Your task to perform on an android device: What's the weather like in Rio de Janeiro? Image 0: 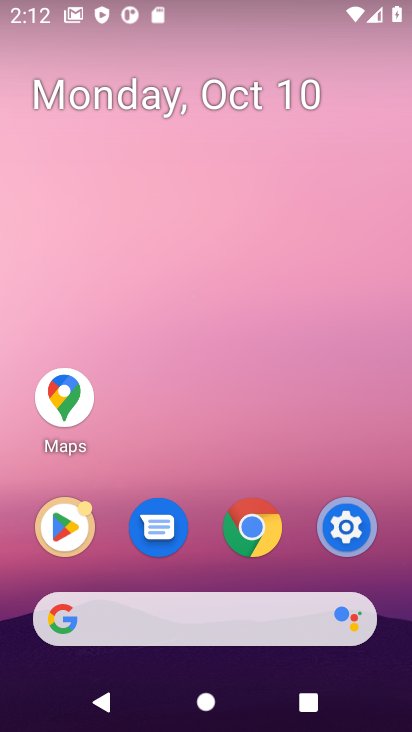
Step 0: press home button
Your task to perform on an android device: What's the weather like in Rio de Janeiro? Image 1: 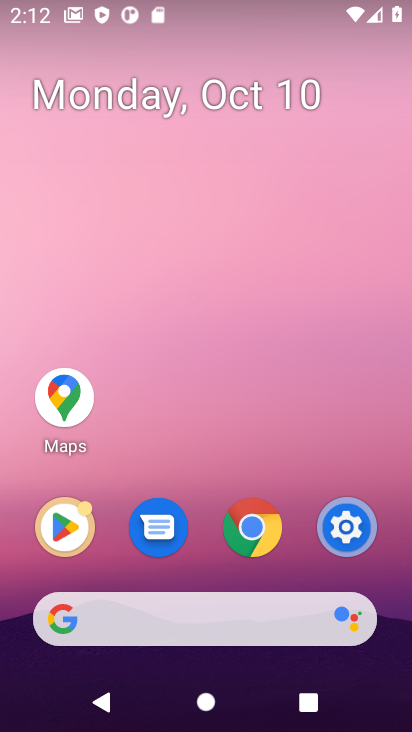
Step 1: click (262, 615)
Your task to perform on an android device: What's the weather like in Rio de Janeiro? Image 2: 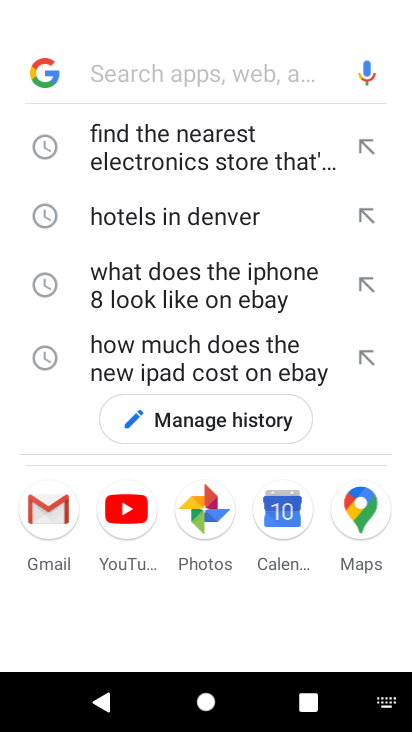
Step 2: type "What's the weather like in Rio de Janeiro"
Your task to perform on an android device: What's the weather like in Rio de Janeiro? Image 3: 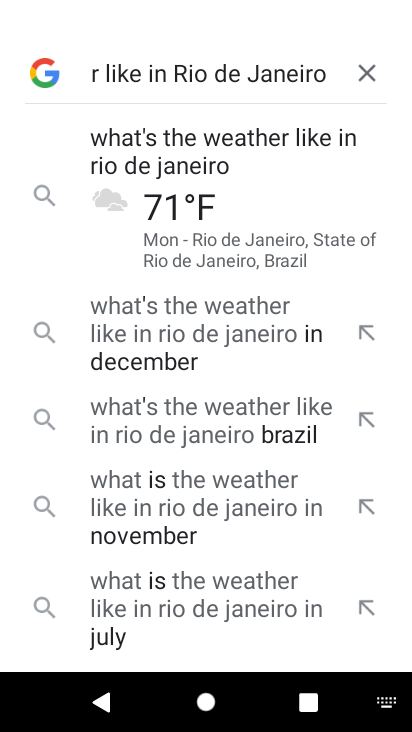
Step 3: press enter
Your task to perform on an android device: What's the weather like in Rio de Janeiro? Image 4: 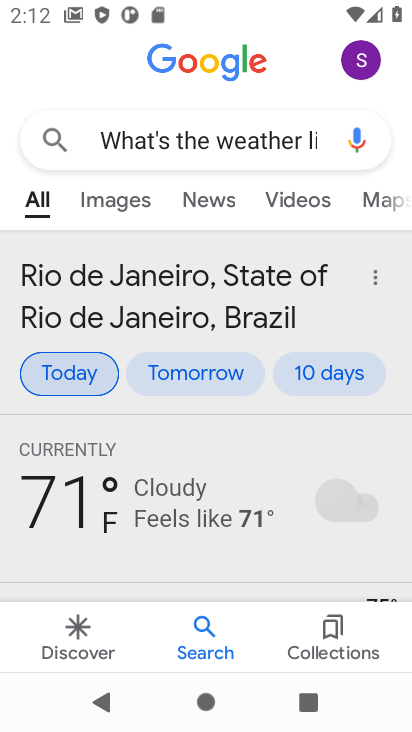
Step 4: task complete